Your task to perform on an android device: open chrome and create a bookmark for the current page Image 0: 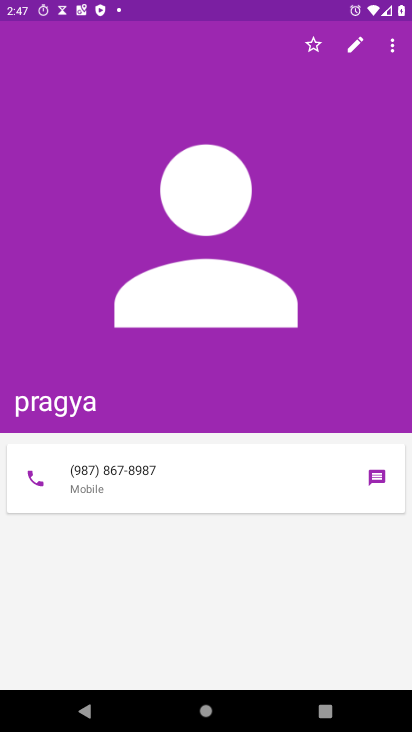
Step 0: press home button
Your task to perform on an android device: open chrome and create a bookmark for the current page Image 1: 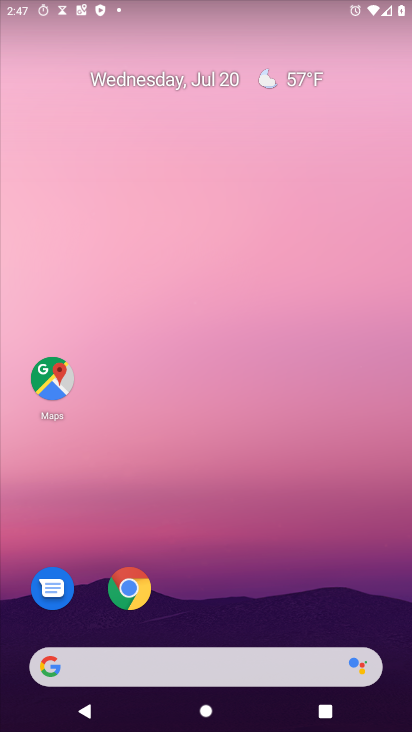
Step 1: drag from (282, 519) to (267, 38)
Your task to perform on an android device: open chrome and create a bookmark for the current page Image 2: 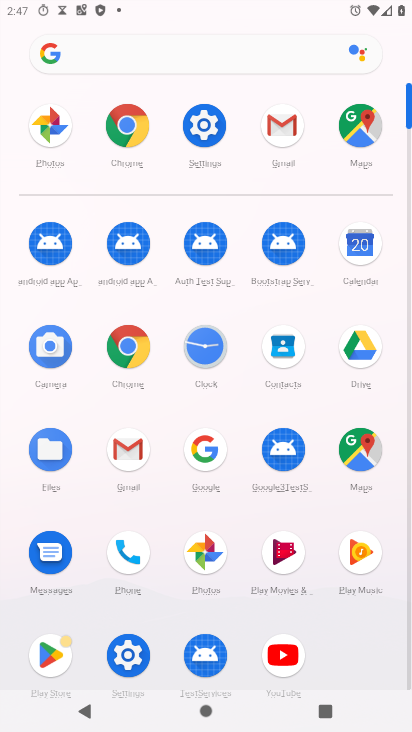
Step 2: click (136, 344)
Your task to perform on an android device: open chrome and create a bookmark for the current page Image 3: 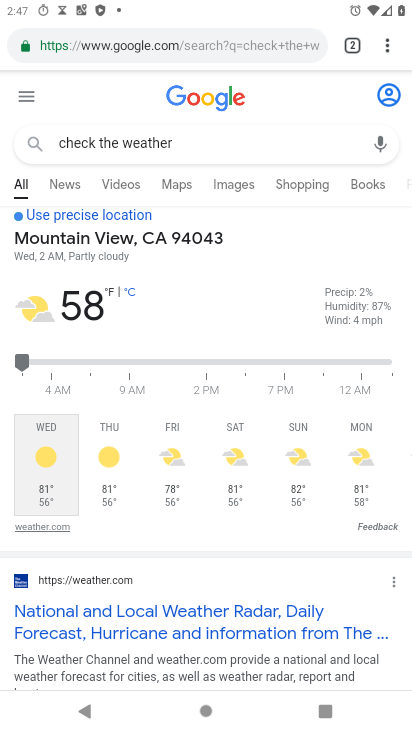
Step 3: task complete